Your task to perform on an android device: Go to ESPN.com Image 0: 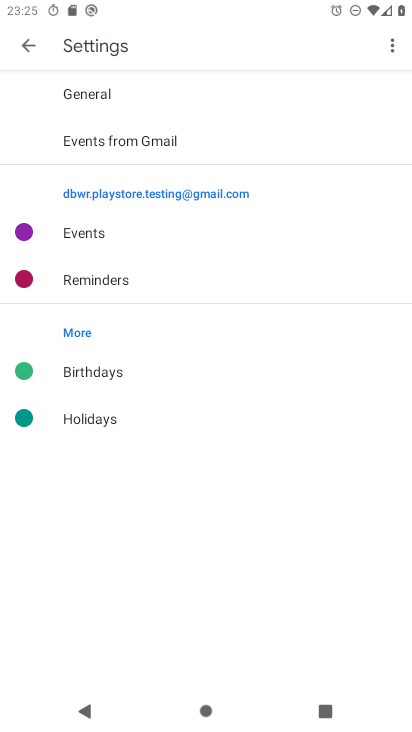
Step 0: press home button
Your task to perform on an android device: Go to ESPN.com Image 1: 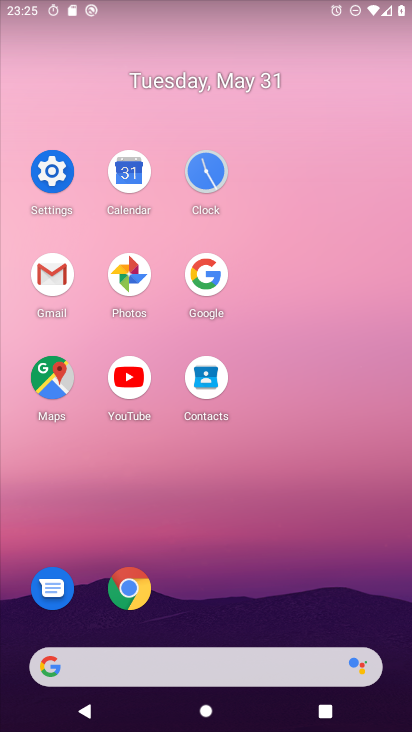
Step 1: click (123, 584)
Your task to perform on an android device: Go to ESPN.com Image 2: 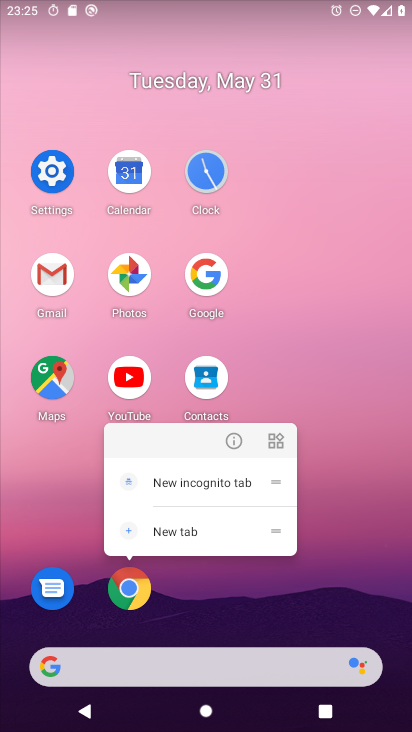
Step 2: click (125, 596)
Your task to perform on an android device: Go to ESPN.com Image 3: 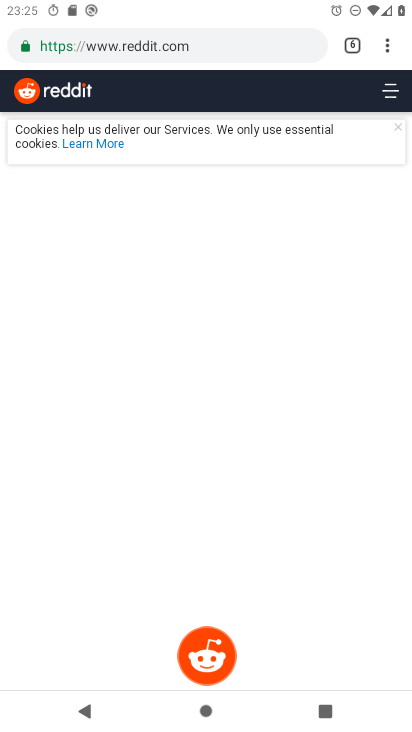
Step 3: click (352, 54)
Your task to perform on an android device: Go to ESPN.com Image 4: 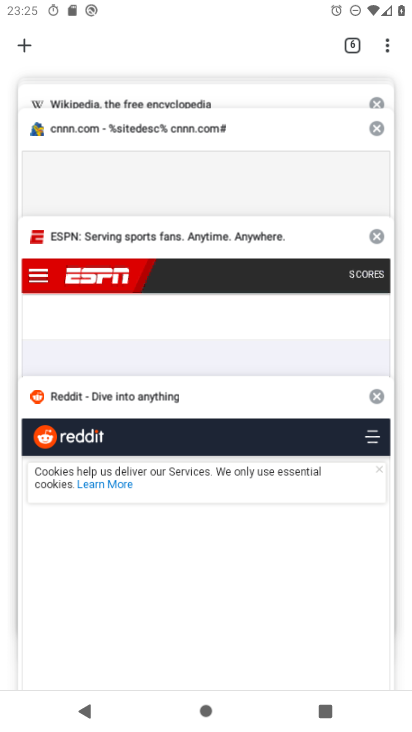
Step 4: click (34, 54)
Your task to perform on an android device: Go to ESPN.com Image 5: 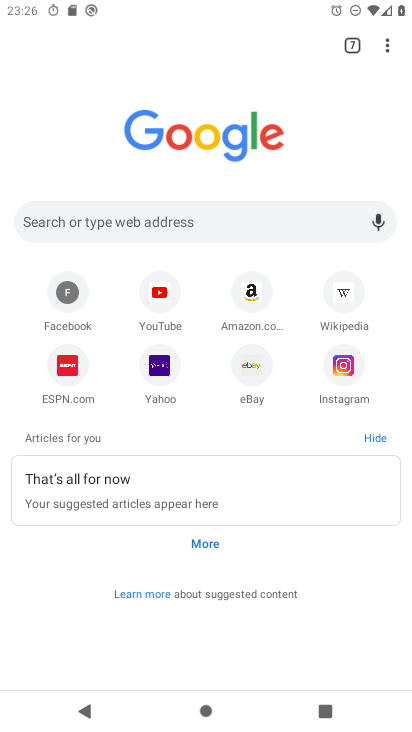
Step 5: click (74, 381)
Your task to perform on an android device: Go to ESPN.com Image 6: 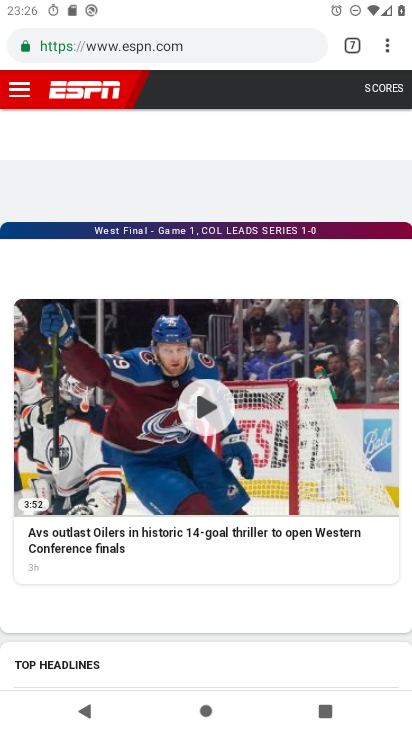
Step 6: task complete